Your task to perform on an android device: Clear the shopping cart on ebay.com. Add logitech g910 to the cart on ebay.com Image 0: 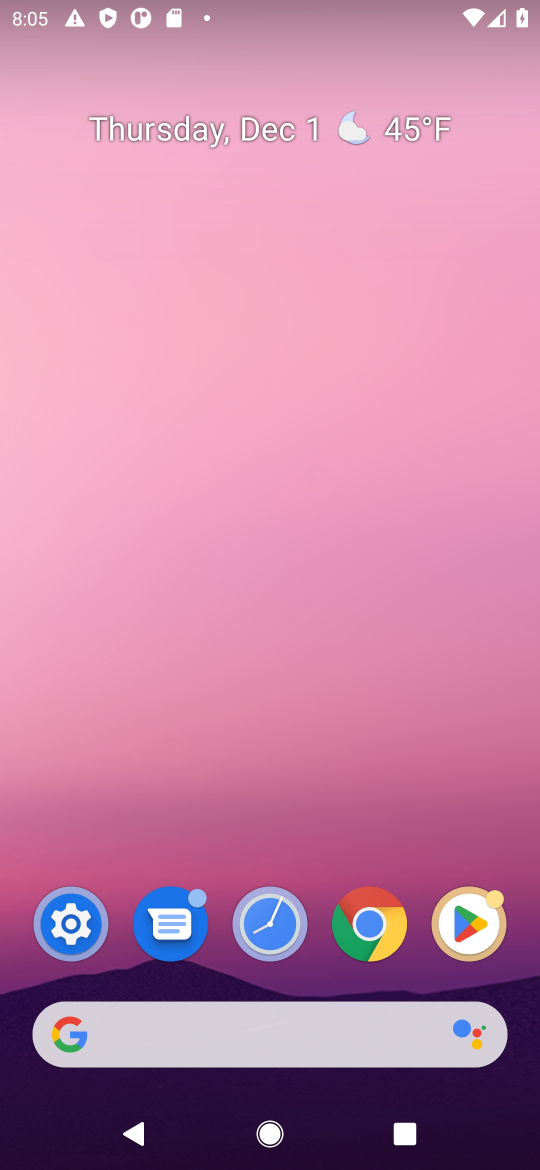
Step 0: click (329, 1034)
Your task to perform on an android device: Clear the shopping cart on ebay.com. Add logitech g910 to the cart on ebay.com Image 1: 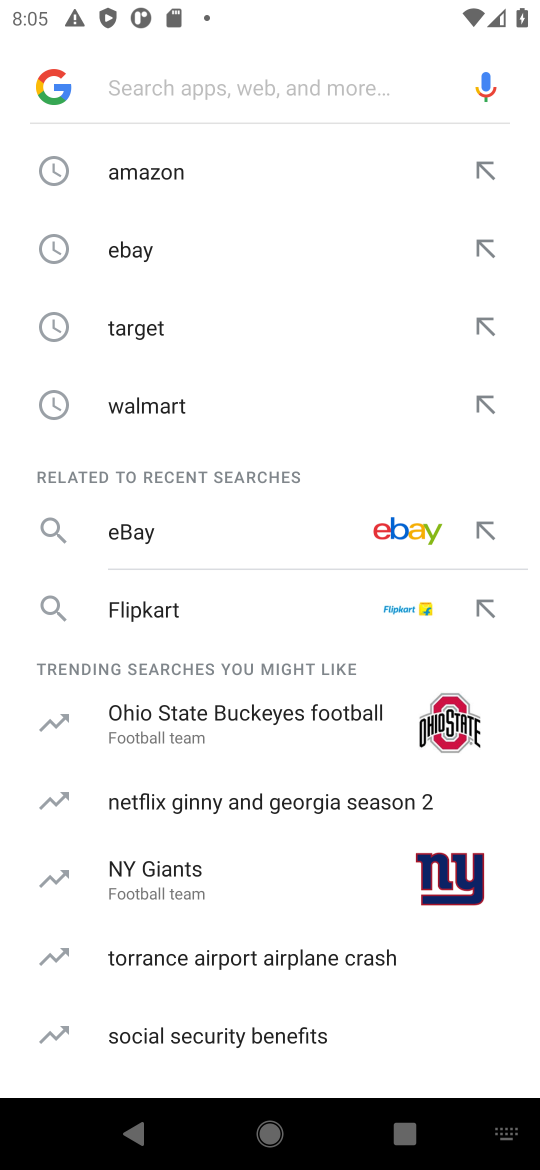
Step 1: type "ebay.com"
Your task to perform on an android device: Clear the shopping cart on ebay.com. Add logitech g910 to the cart on ebay.com Image 2: 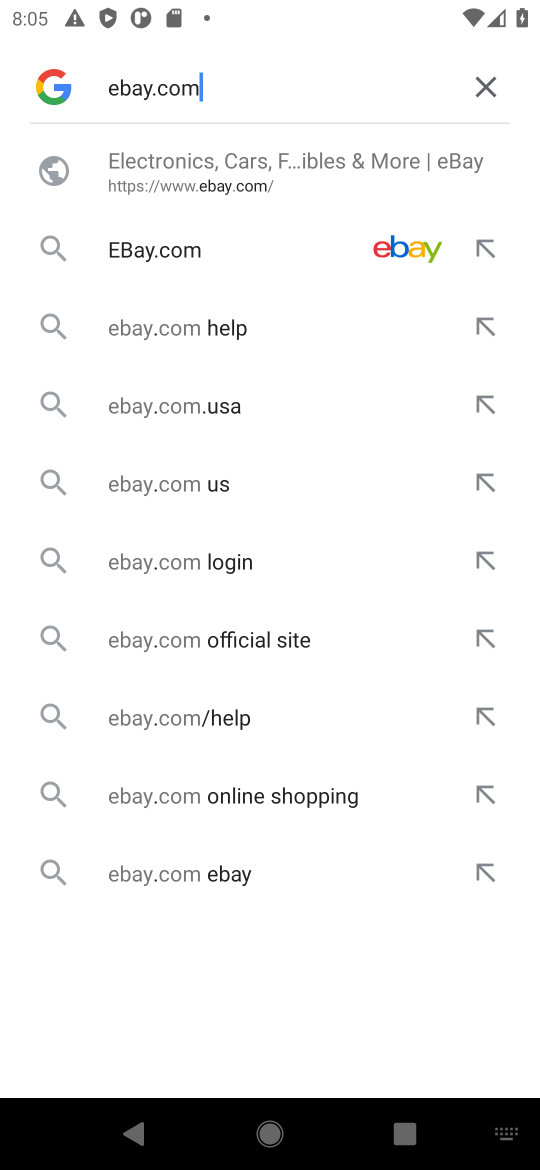
Step 2: click (174, 225)
Your task to perform on an android device: Clear the shopping cart on ebay.com. Add logitech g910 to the cart on ebay.com Image 3: 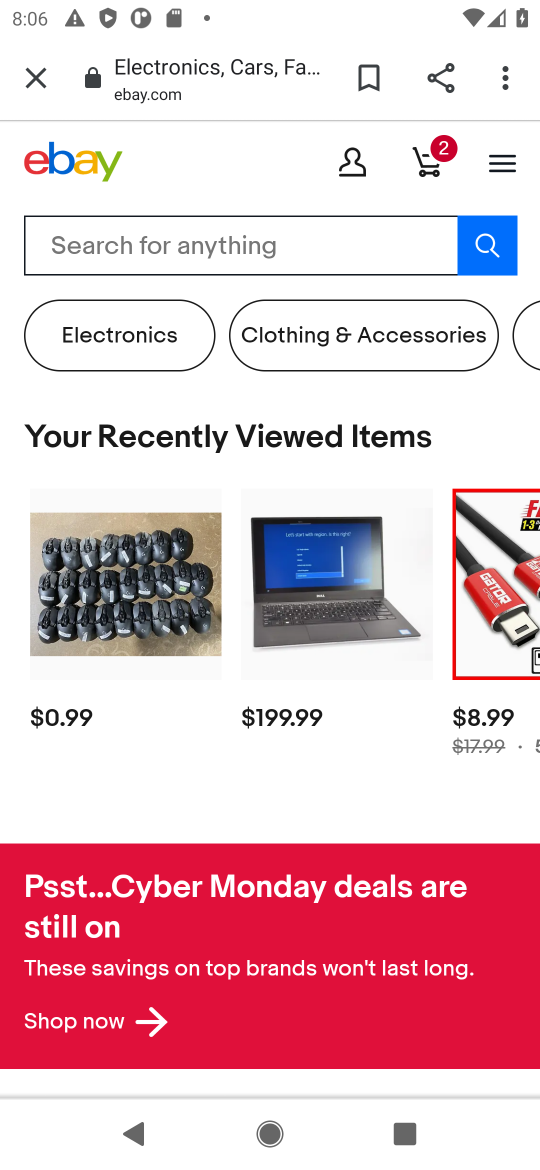
Step 3: click (174, 225)
Your task to perform on an android device: Clear the shopping cart on ebay.com. Add logitech g910 to the cart on ebay.com Image 4: 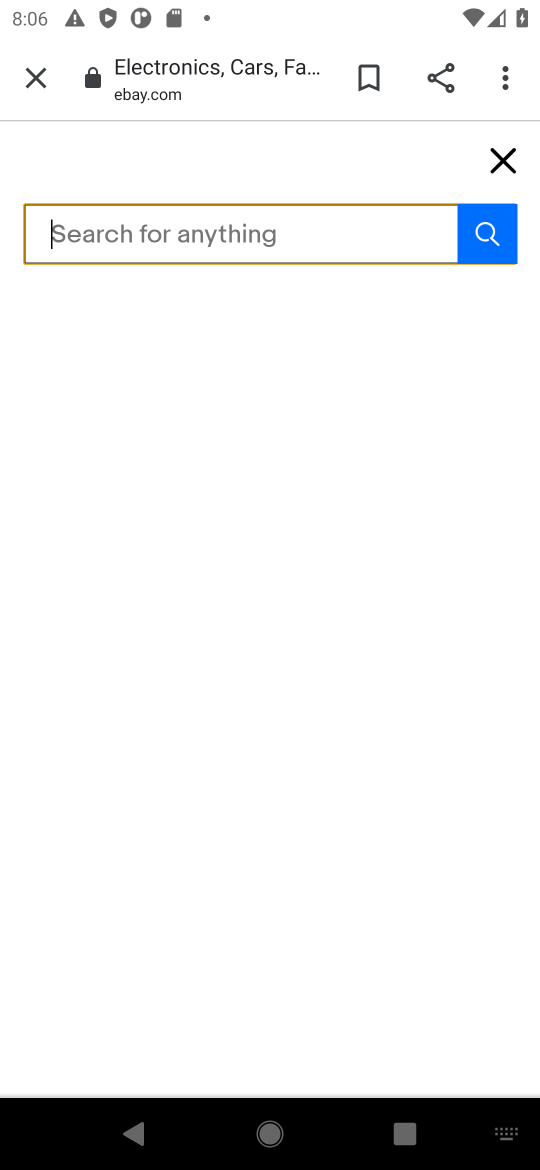
Step 4: type "logitech g910"
Your task to perform on an android device: Clear the shopping cart on ebay.com. Add logitech g910 to the cart on ebay.com Image 5: 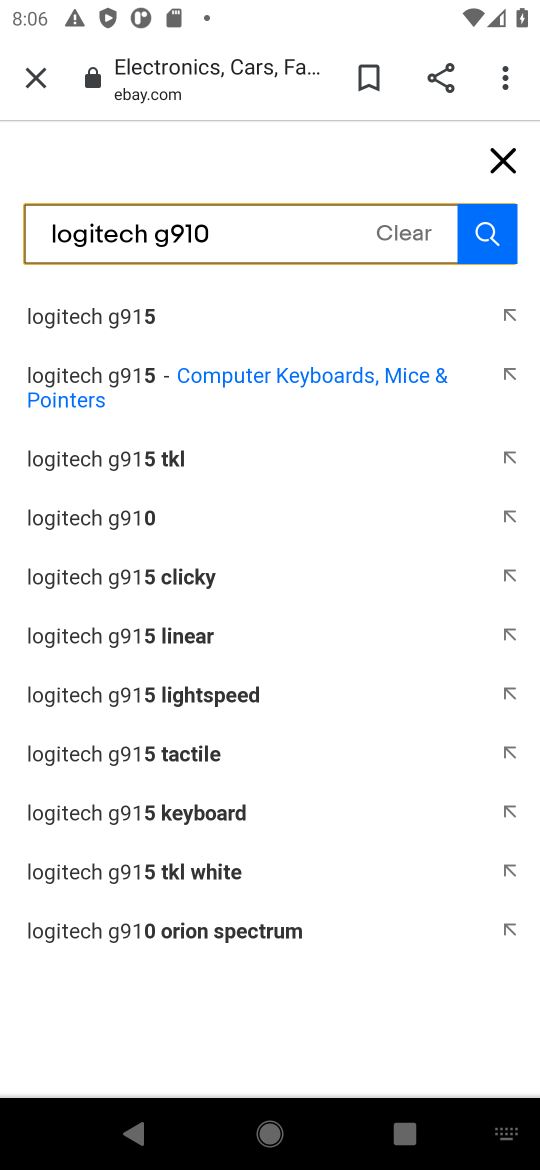
Step 5: click (474, 230)
Your task to perform on an android device: Clear the shopping cart on ebay.com. Add logitech g910 to the cart on ebay.com Image 6: 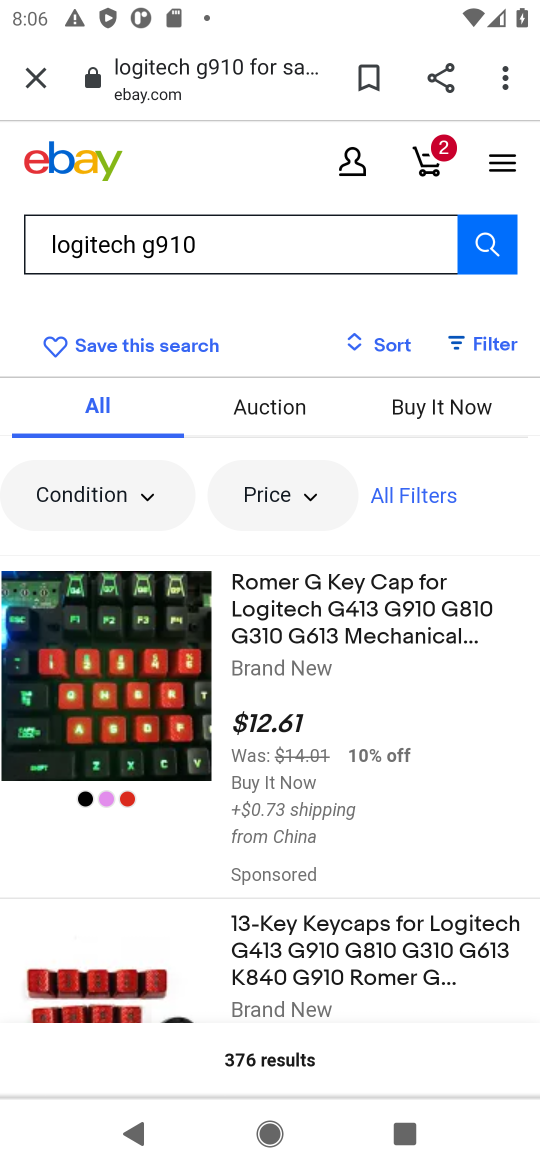
Step 6: click (329, 625)
Your task to perform on an android device: Clear the shopping cart on ebay.com. Add logitech g910 to the cart on ebay.com Image 7: 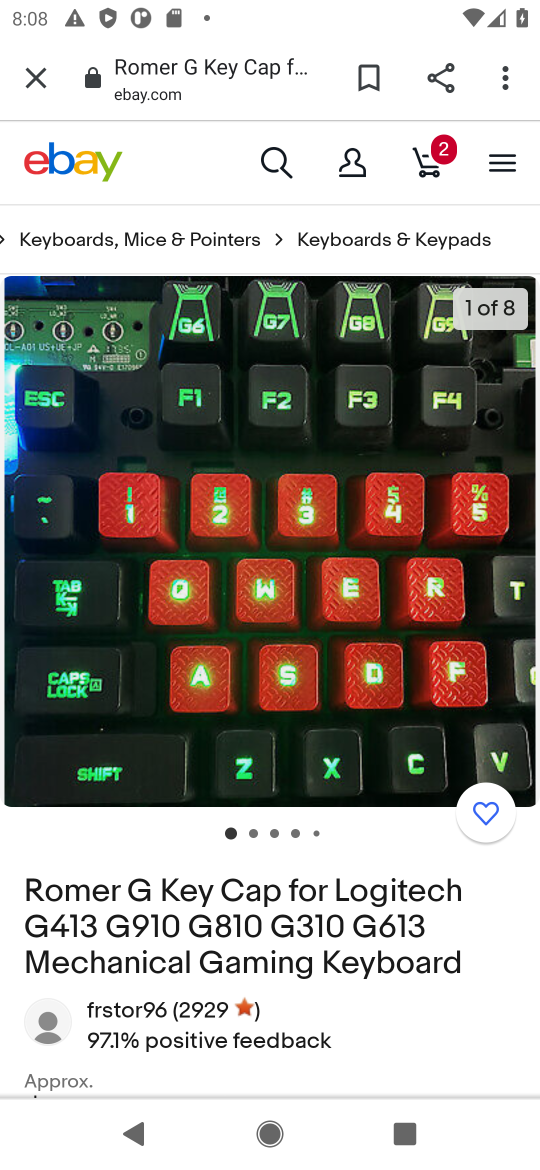
Step 7: task complete